Your task to perform on an android device: snooze an email in the gmail app Image 0: 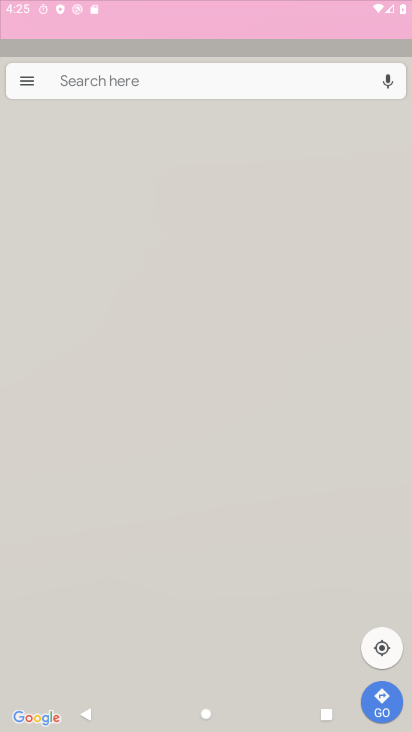
Step 0: drag from (33, 100) to (123, 20)
Your task to perform on an android device: snooze an email in the gmail app Image 1: 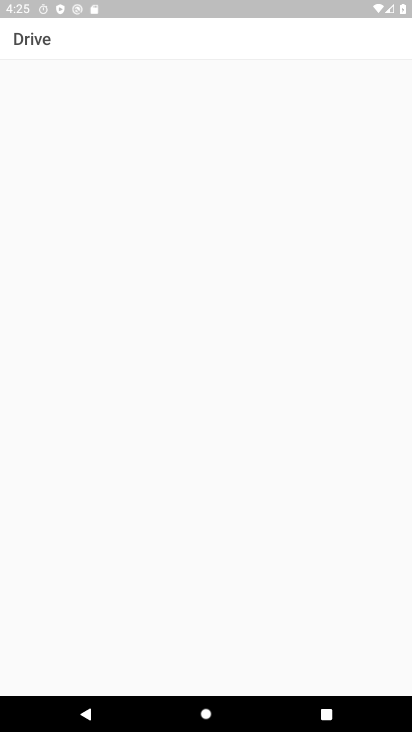
Step 1: press back button
Your task to perform on an android device: snooze an email in the gmail app Image 2: 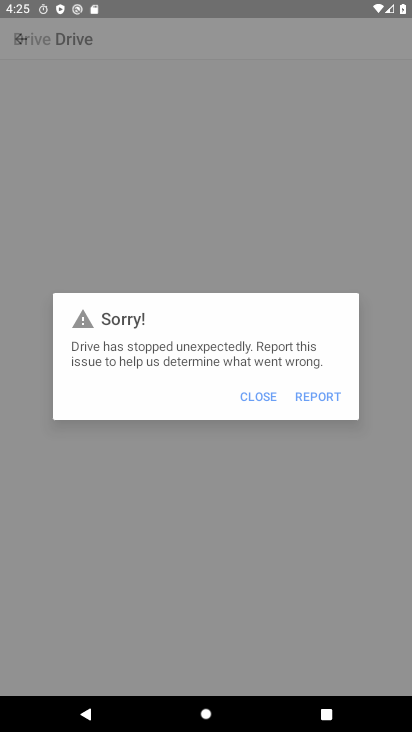
Step 2: press back button
Your task to perform on an android device: snooze an email in the gmail app Image 3: 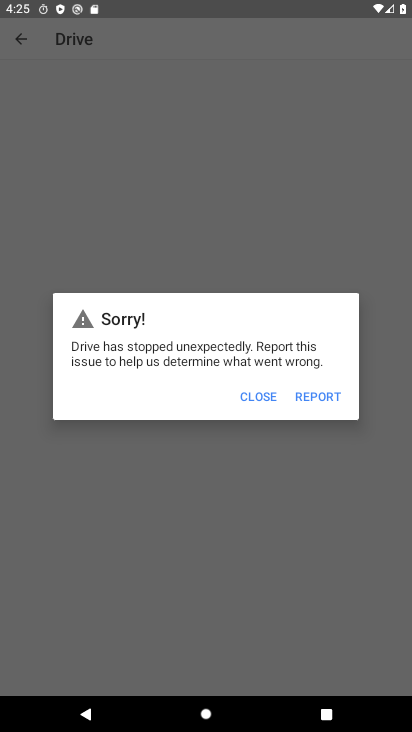
Step 3: click (255, 396)
Your task to perform on an android device: snooze an email in the gmail app Image 4: 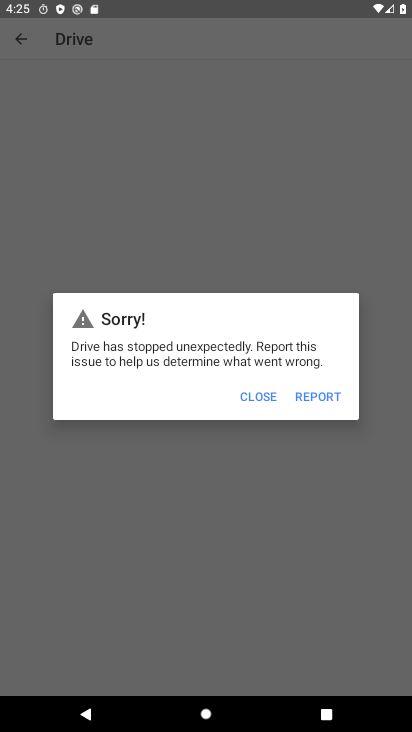
Step 4: click (255, 396)
Your task to perform on an android device: snooze an email in the gmail app Image 5: 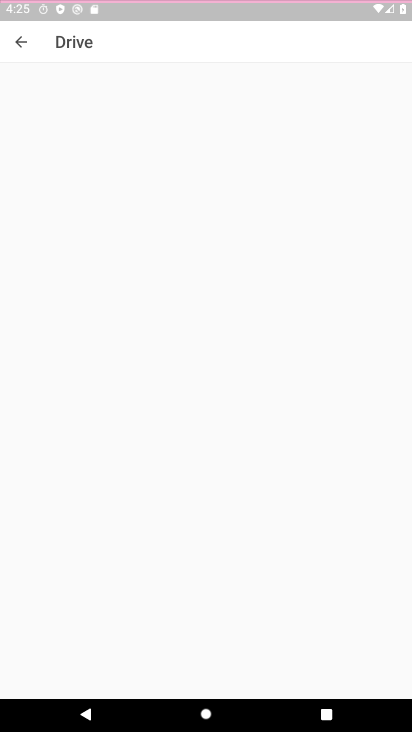
Step 5: click (255, 397)
Your task to perform on an android device: snooze an email in the gmail app Image 6: 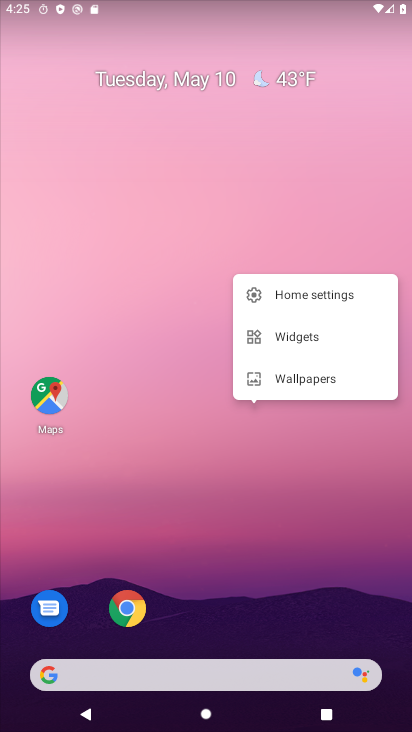
Step 6: drag from (301, 612) to (8, 50)
Your task to perform on an android device: snooze an email in the gmail app Image 7: 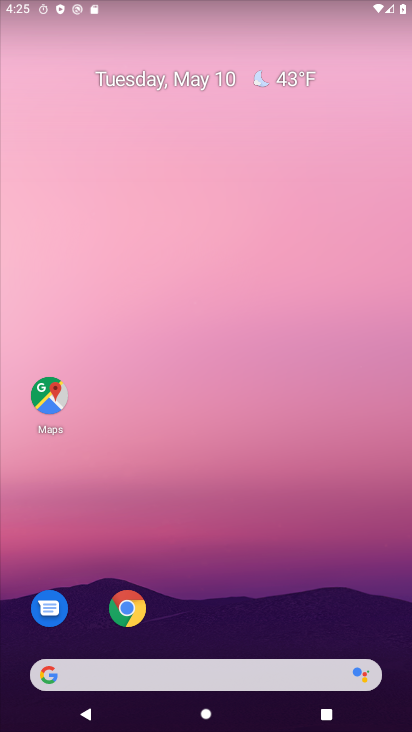
Step 7: drag from (235, 501) to (164, 47)
Your task to perform on an android device: snooze an email in the gmail app Image 8: 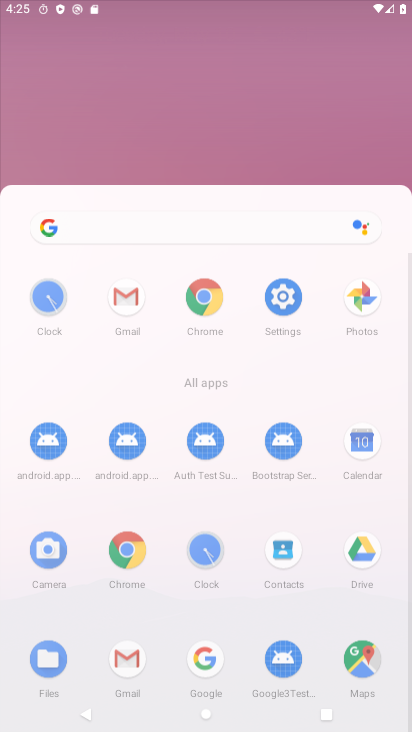
Step 8: drag from (271, 408) to (130, 28)
Your task to perform on an android device: snooze an email in the gmail app Image 9: 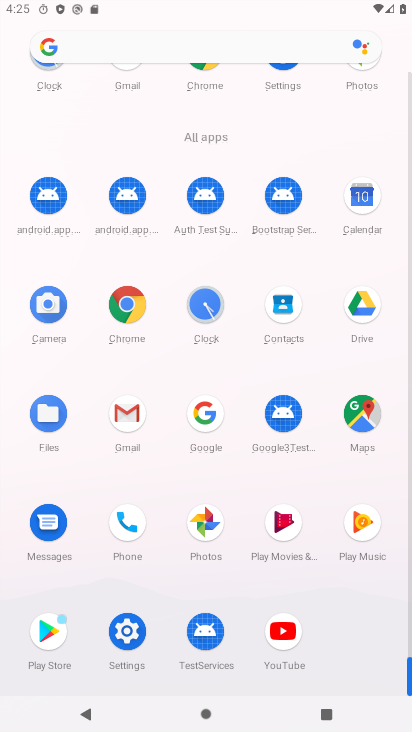
Step 9: click (126, 417)
Your task to perform on an android device: snooze an email in the gmail app Image 10: 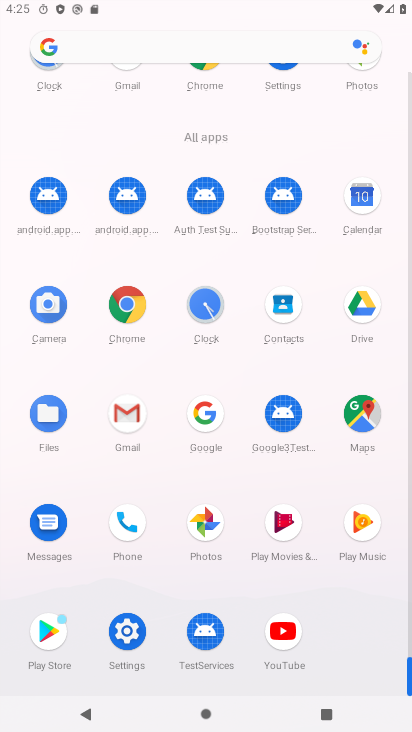
Step 10: click (126, 417)
Your task to perform on an android device: snooze an email in the gmail app Image 11: 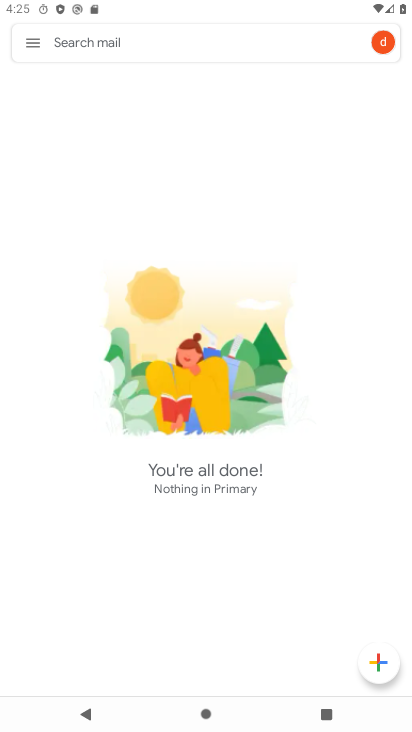
Step 11: click (36, 42)
Your task to perform on an android device: snooze an email in the gmail app Image 12: 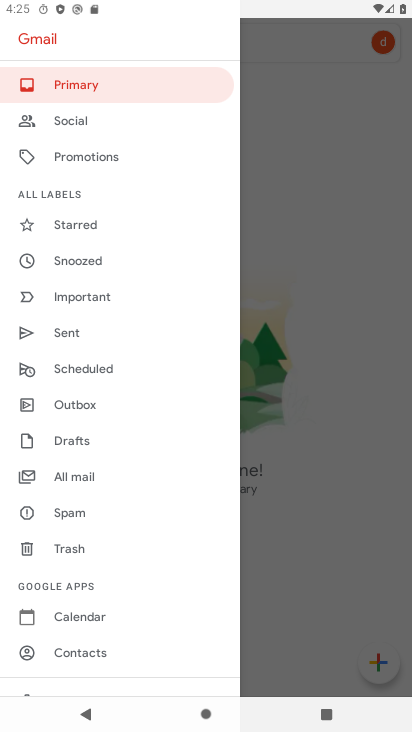
Step 12: click (70, 475)
Your task to perform on an android device: snooze an email in the gmail app Image 13: 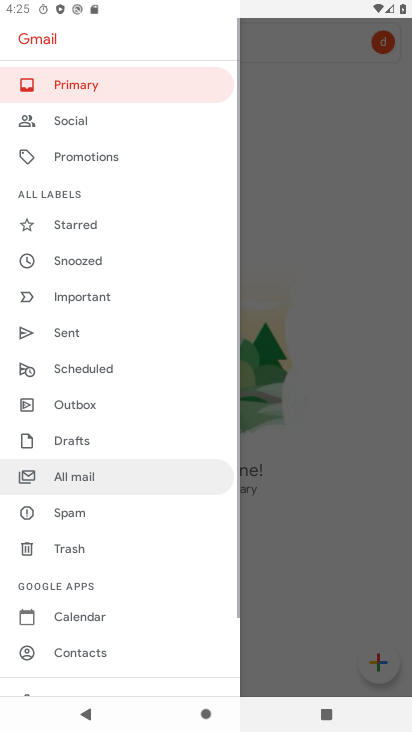
Step 13: click (70, 475)
Your task to perform on an android device: snooze an email in the gmail app Image 14: 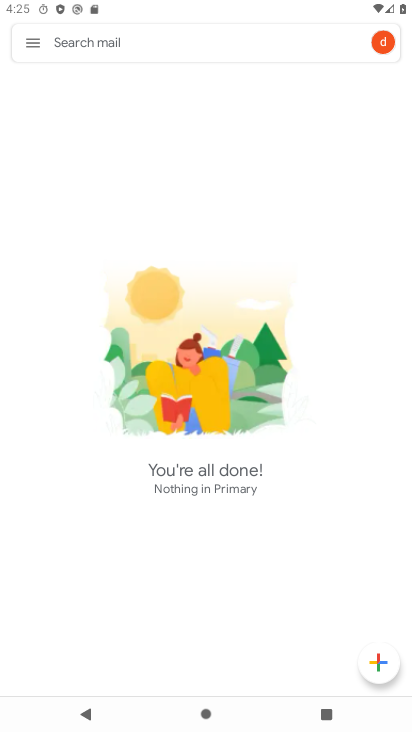
Step 14: click (68, 474)
Your task to perform on an android device: snooze an email in the gmail app Image 15: 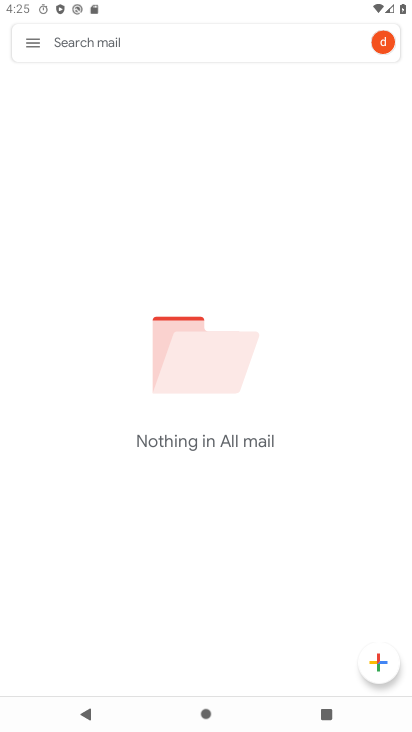
Step 15: task complete